Your task to perform on an android device: Open Chrome and go to settings Image 0: 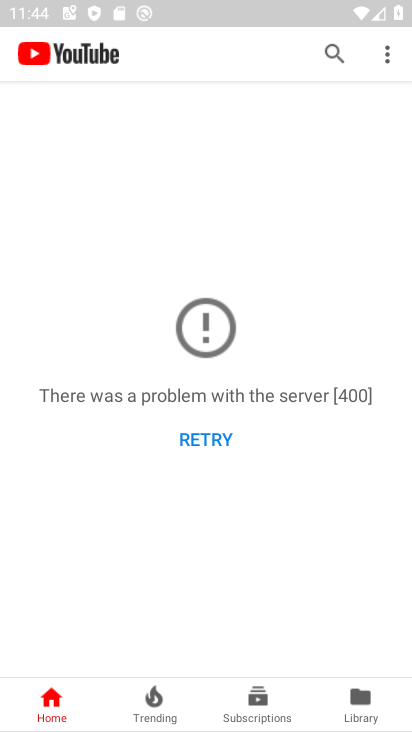
Step 0: press home button
Your task to perform on an android device: Open Chrome and go to settings Image 1: 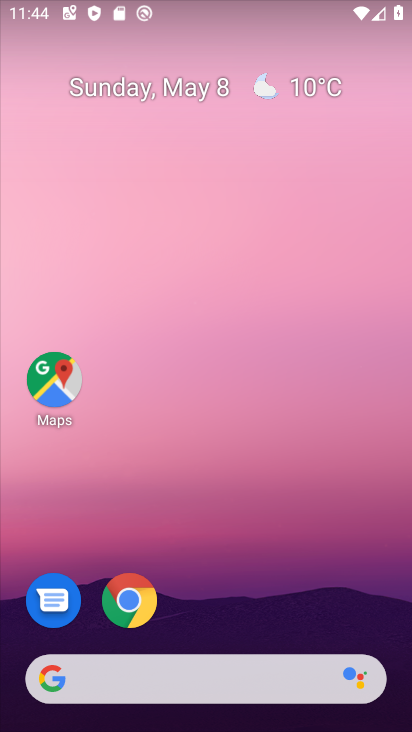
Step 1: click (122, 603)
Your task to perform on an android device: Open Chrome and go to settings Image 2: 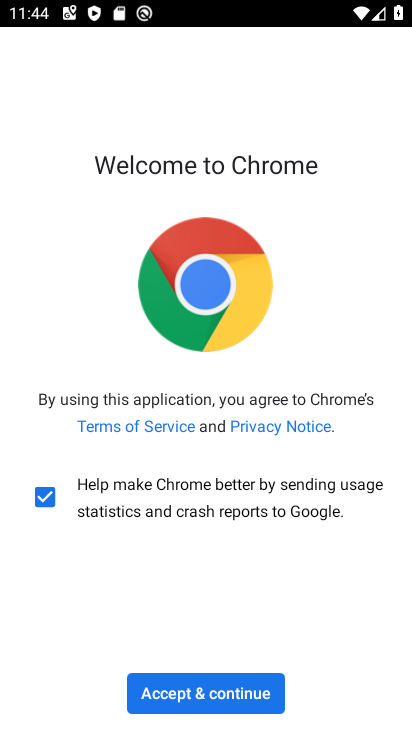
Step 2: click (234, 684)
Your task to perform on an android device: Open Chrome and go to settings Image 3: 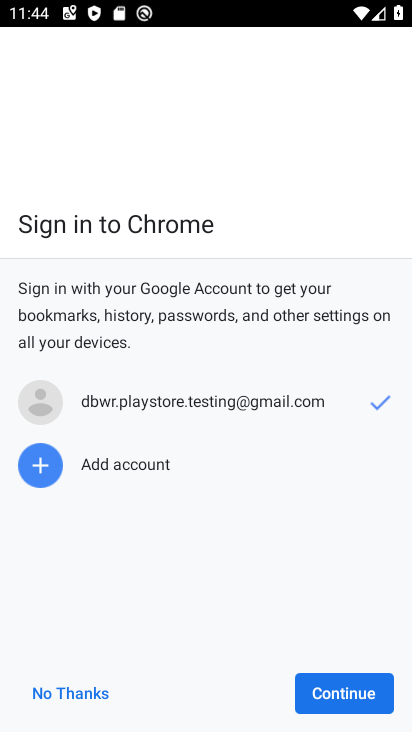
Step 3: click (378, 697)
Your task to perform on an android device: Open Chrome and go to settings Image 4: 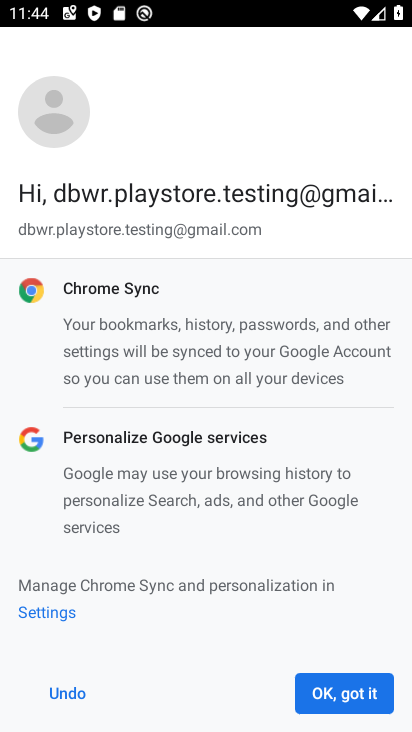
Step 4: click (377, 696)
Your task to perform on an android device: Open Chrome and go to settings Image 5: 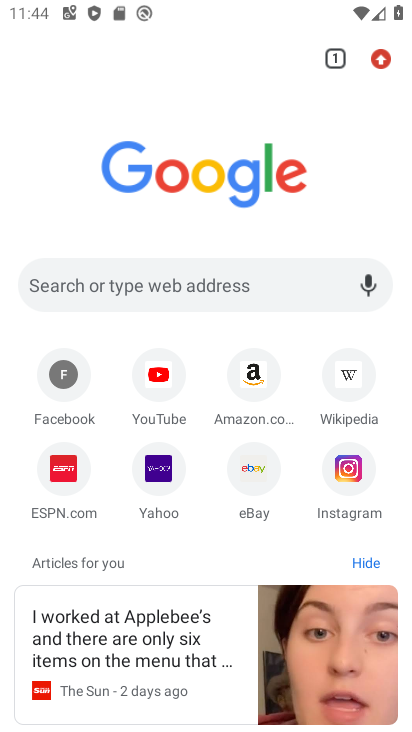
Step 5: click (382, 60)
Your task to perform on an android device: Open Chrome and go to settings Image 6: 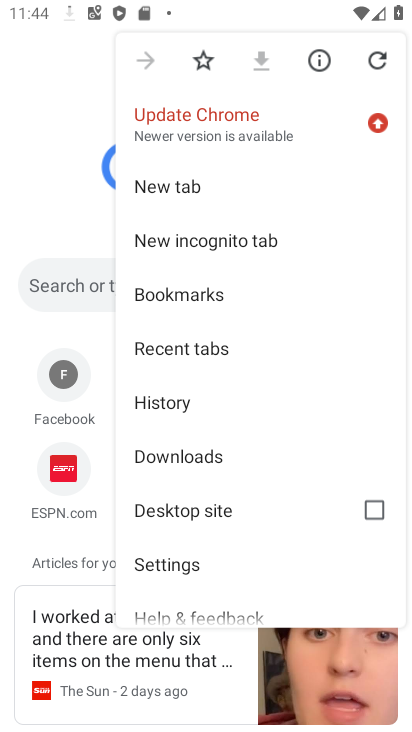
Step 6: click (171, 563)
Your task to perform on an android device: Open Chrome and go to settings Image 7: 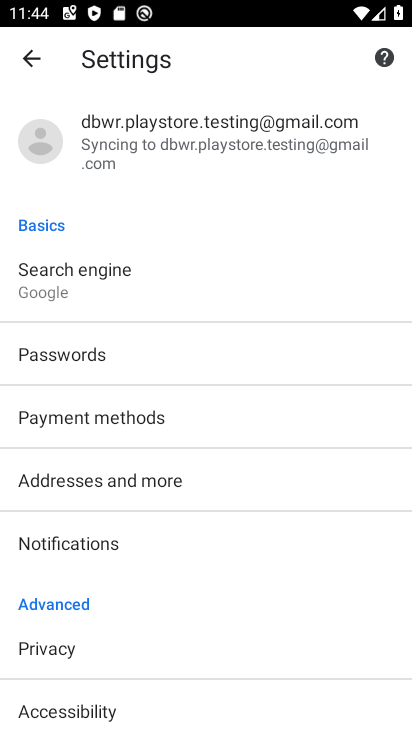
Step 7: task complete